Your task to perform on an android device: Open maps Image 0: 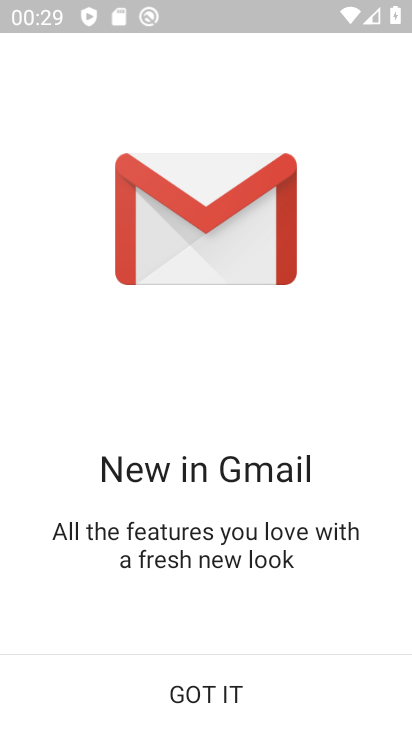
Step 0: press home button
Your task to perform on an android device: Open maps Image 1: 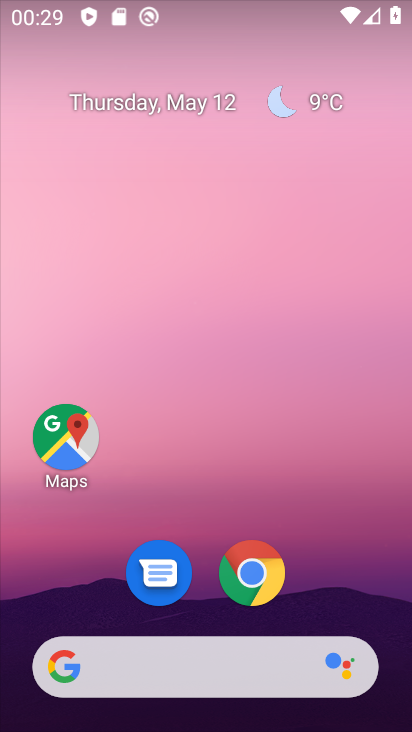
Step 1: click (55, 436)
Your task to perform on an android device: Open maps Image 2: 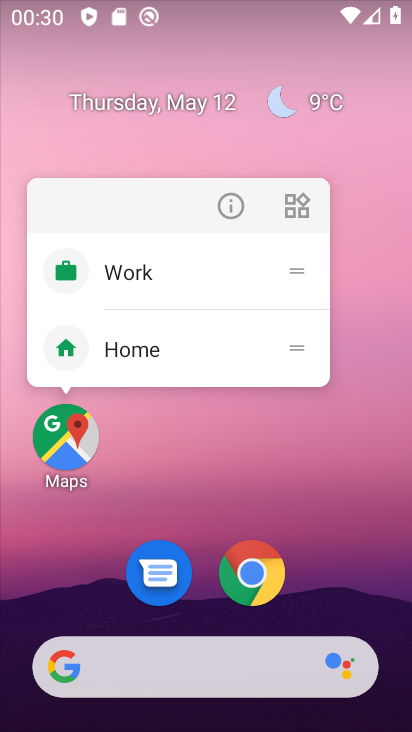
Step 2: click (57, 432)
Your task to perform on an android device: Open maps Image 3: 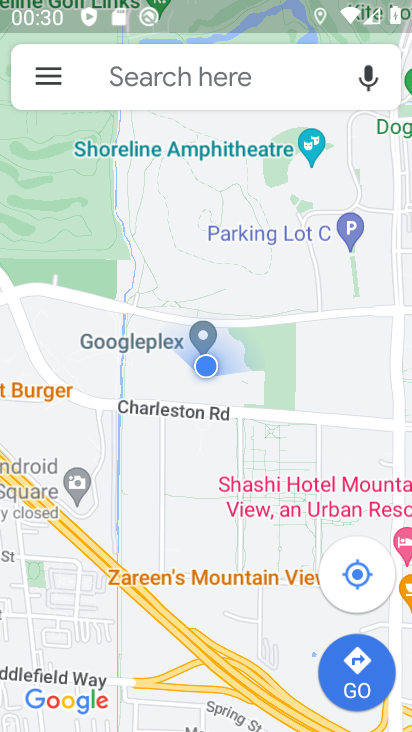
Step 3: task complete